Your task to perform on an android device: Check the weather Image 0: 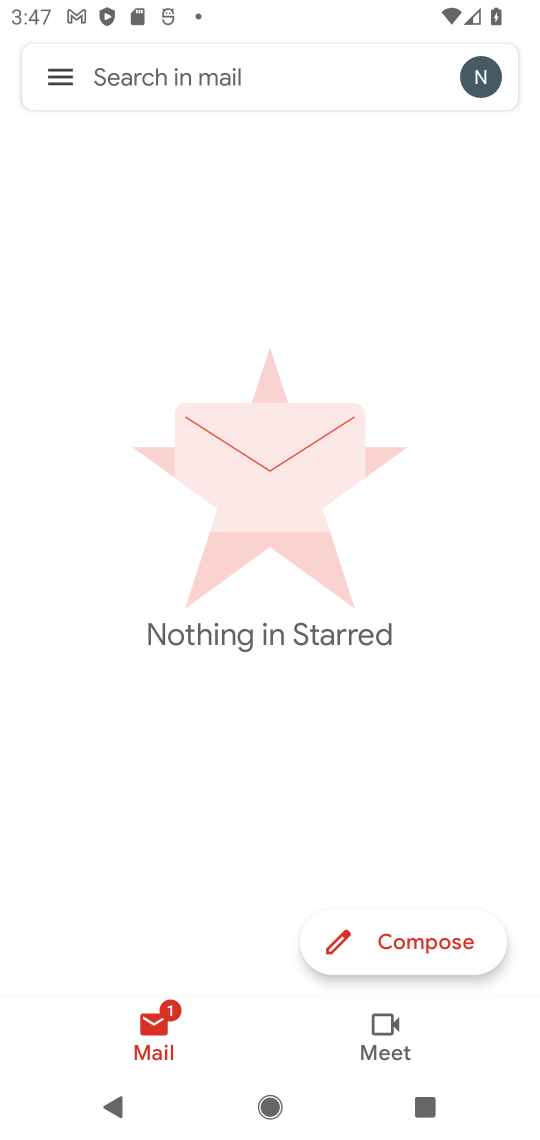
Step 0: press home button
Your task to perform on an android device: Check the weather Image 1: 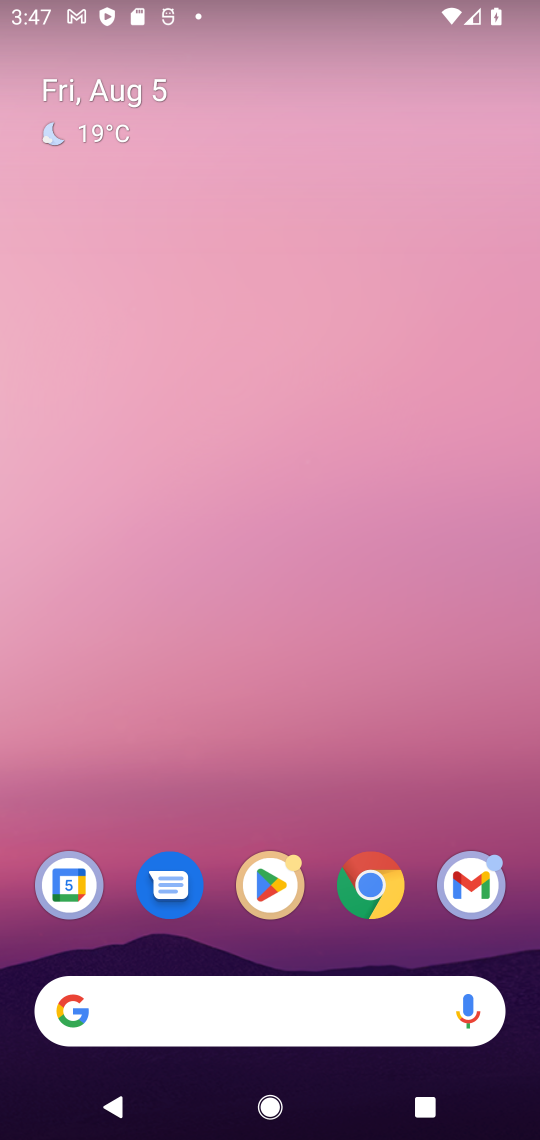
Step 1: drag from (306, 963) to (307, 96)
Your task to perform on an android device: Check the weather Image 2: 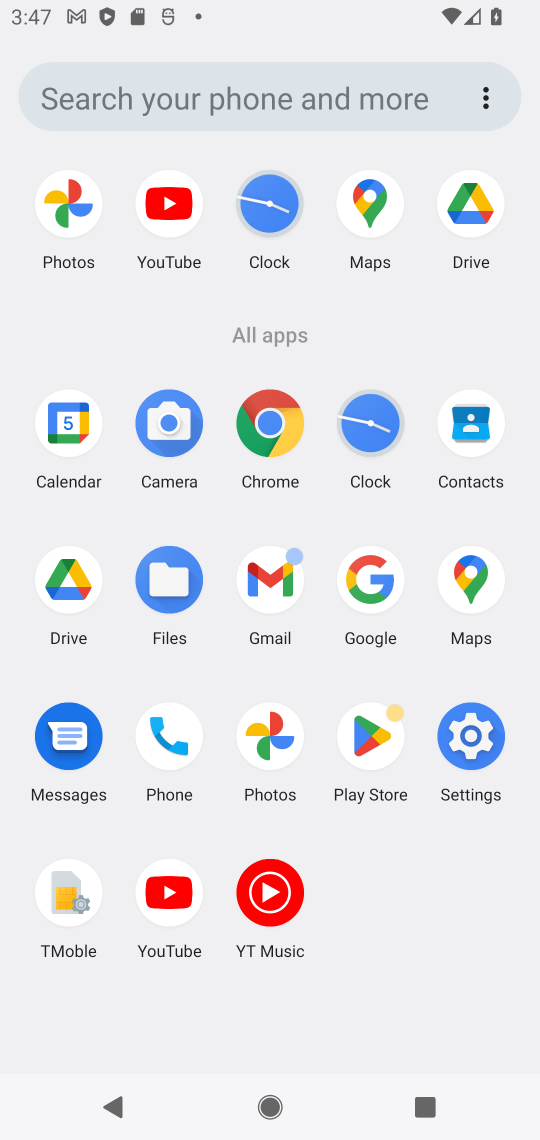
Step 2: click (370, 572)
Your task to perform on an android device: Check the weather Image 3: 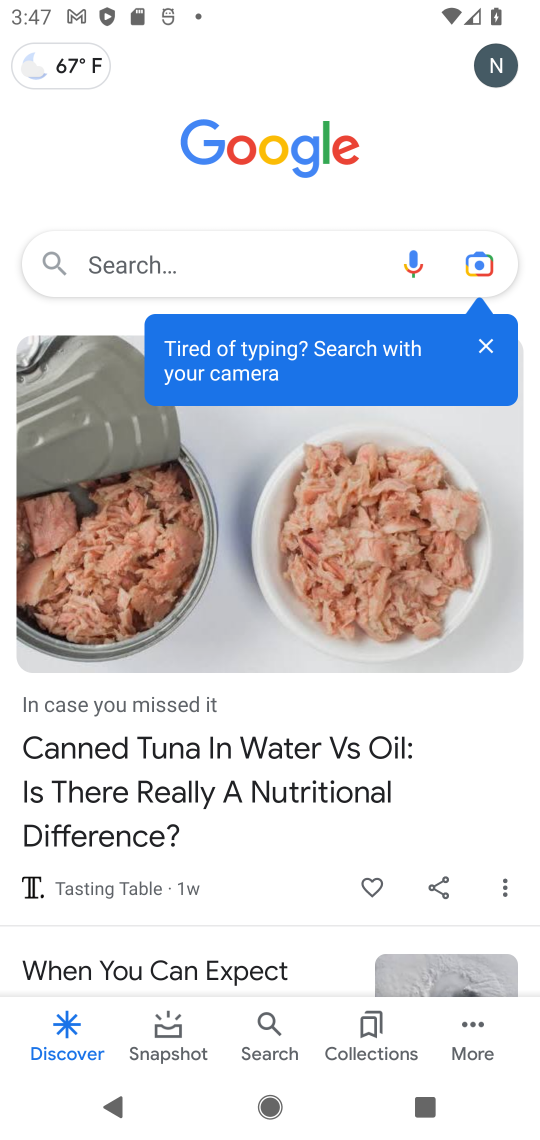
Step 3: click (202, 268)
Your task to perform on an android device: Check the weather Image 4: 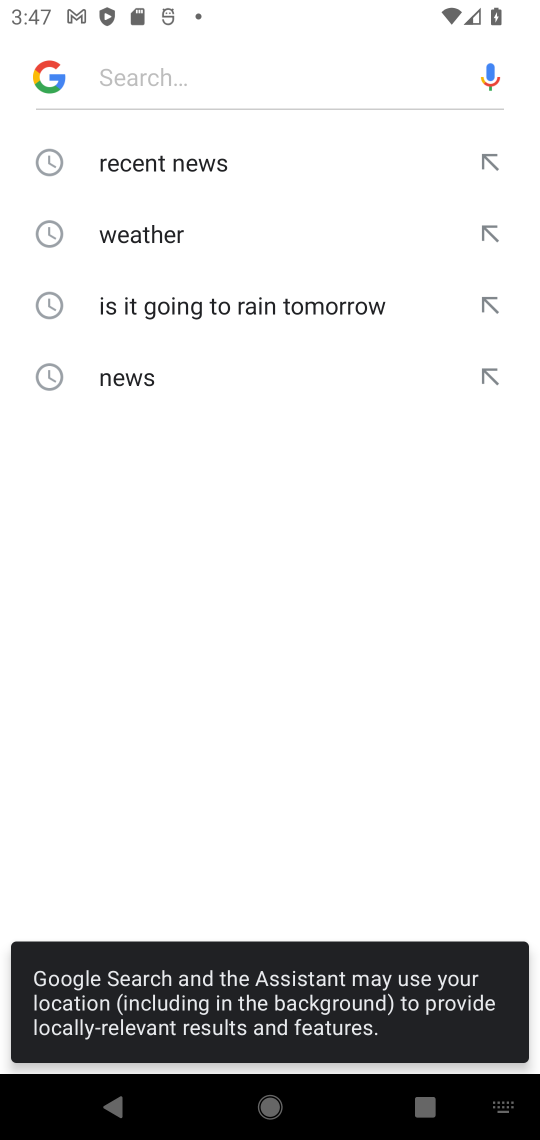
Step 4: click (169, 230)
Your task to perform on an android device: Check the weather Image 5: 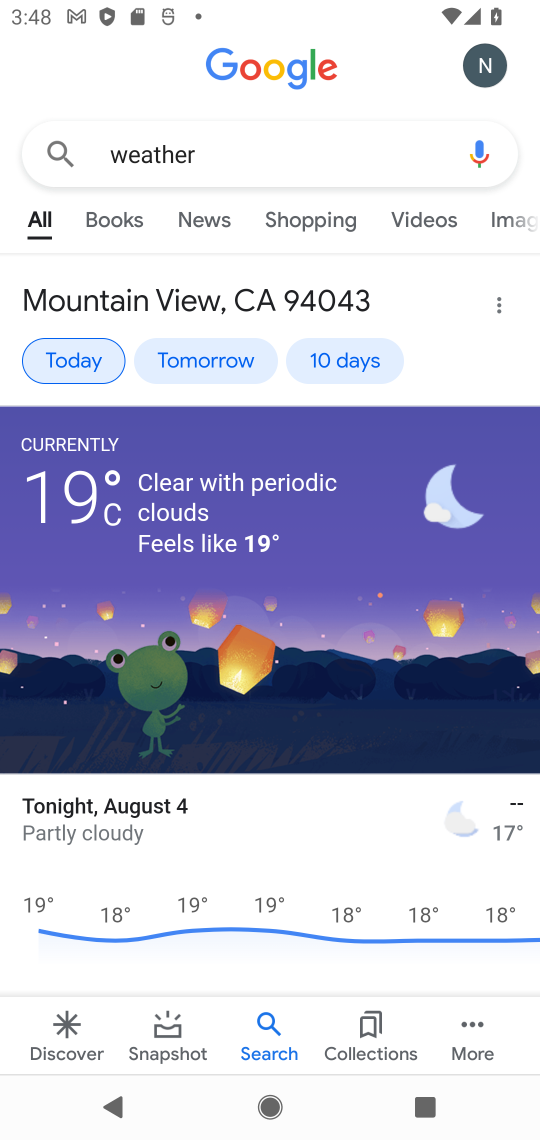
Step 5: task complete